Your task to perform on an android device: Open settings Image 0: 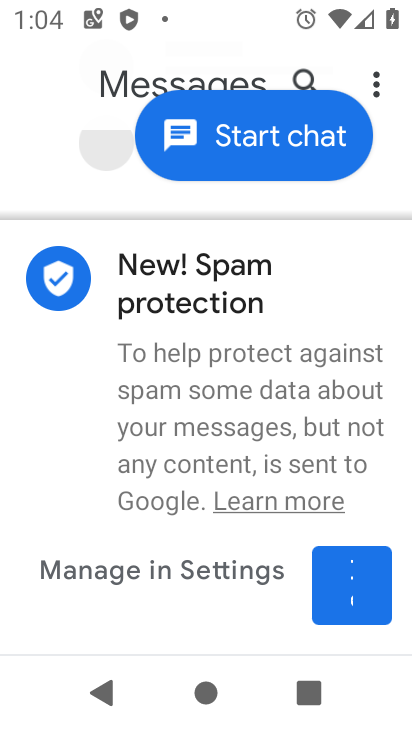
Step 0: press home button
Your task to perform on an android device: Open settings Image 1: 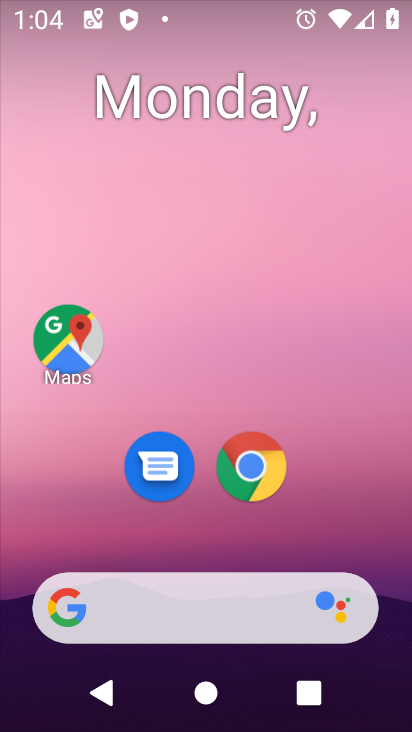
Step 1: drag from (383, 628) to (227, 13)
Your task to perform on an android device: Open settings Image 2: 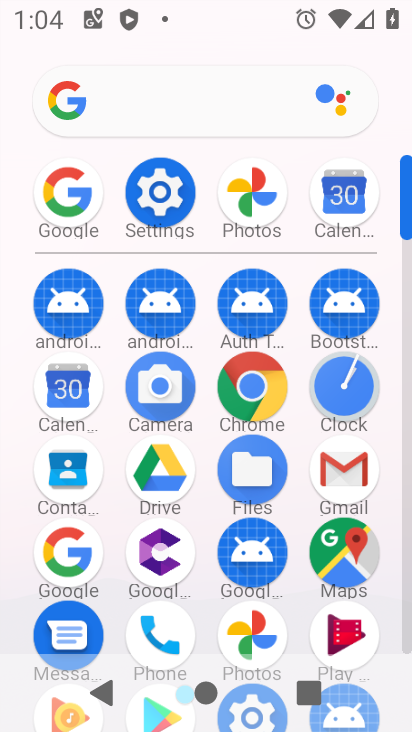
Step 2: click (168, 222)
Your task to perform on an android device: Open settings Image 3: 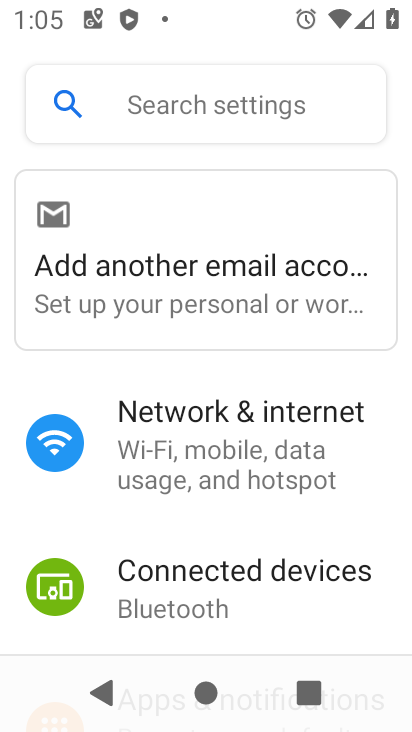
Step 3: task complete